Your task to perform on an android device: set default search engine in the chrome app Image 0: 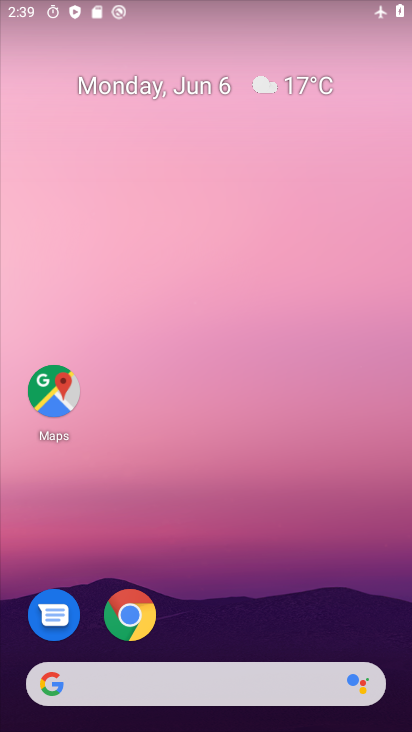
Step 0: click (148, 611)
Your task to perform on an android device: set default search engine in the chrome app Image 1: 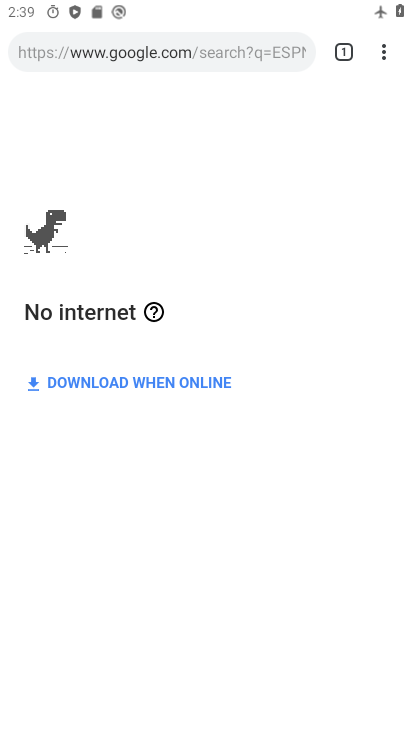
Step 1: click (389, 60)
Your task to perform on an android device: set default search engine in the chrome app Image 2: 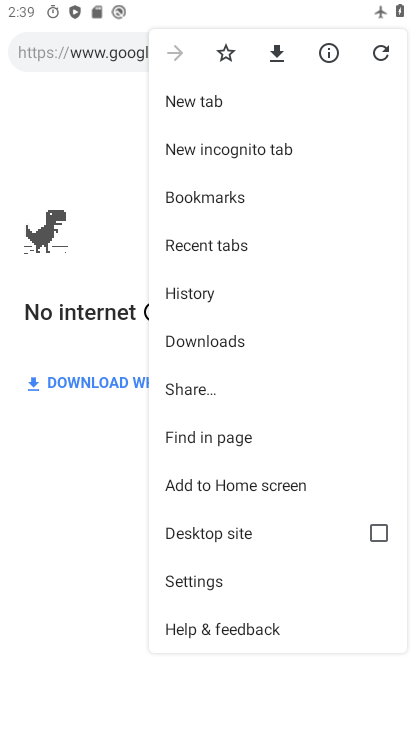
Step 2: click (214, 584)
Your task to perform on an android device: set default search engine in the chrome app Image 3: 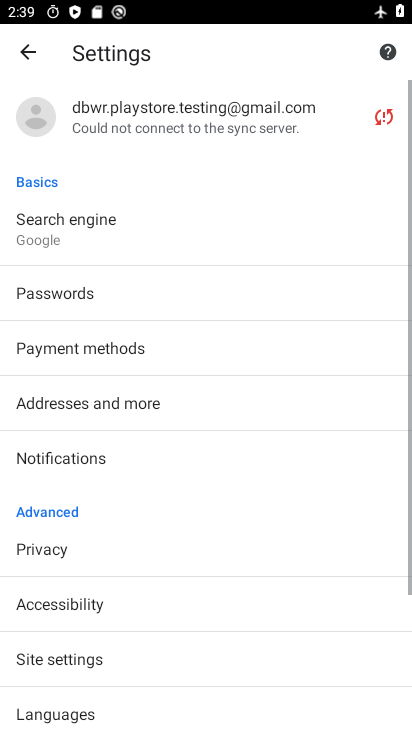
Step 3: click (32, 226)
Your task to perform on an android device: set default search engine in the chrome app Image 4: 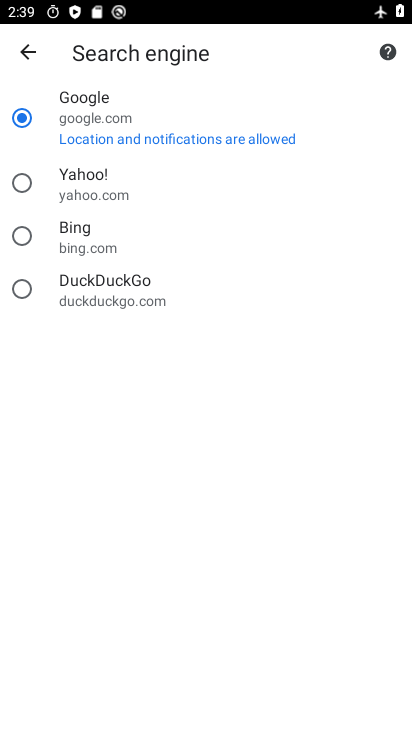
Step 4: click (89, 188)
Your task to perform on an android device: set default search engine in the chrome app Image 5: 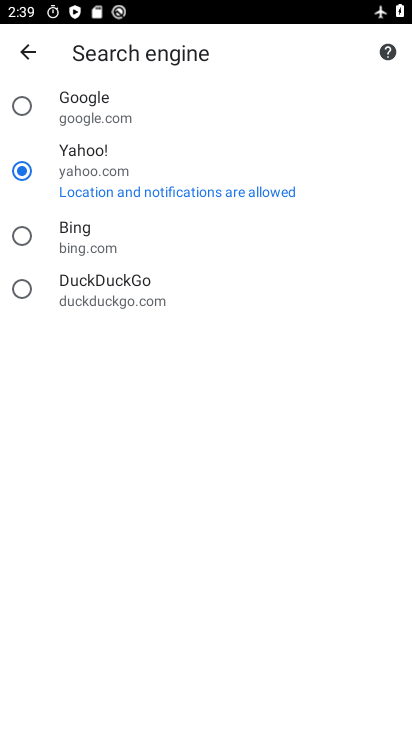
Step 5: task complete